Your task to perform on an android device: Open the calendar and show me this week's events? Image 0: 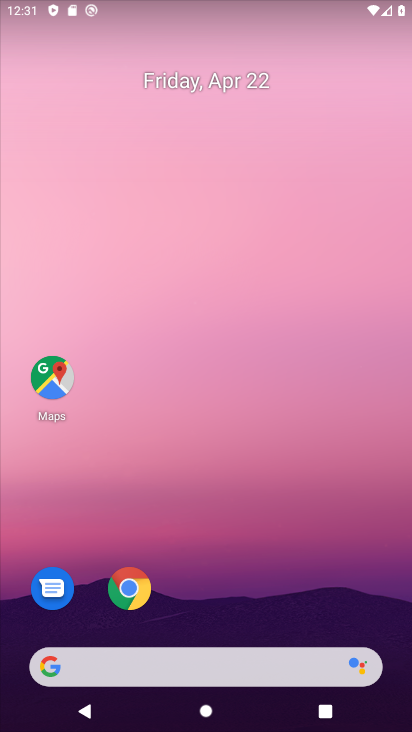
Step 0: drag from (221, 579) to (288, 14)
Your task to perform on an android device: Open the calendar and show me this week's events? Image 1: 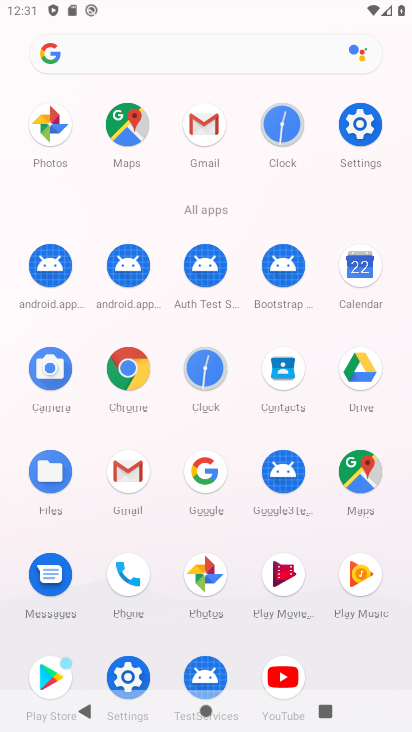
Step 1: click (355, 261)
Your task to perform on an android device: Open the calendar and show me this week's events? Image 2: 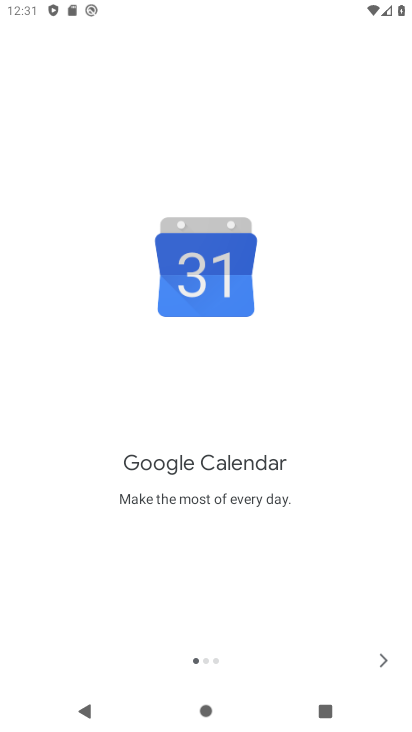
Step 2: click (372, 655)
Your task to perform on an android device: Open the calendar and show me this week's events? Image 3: 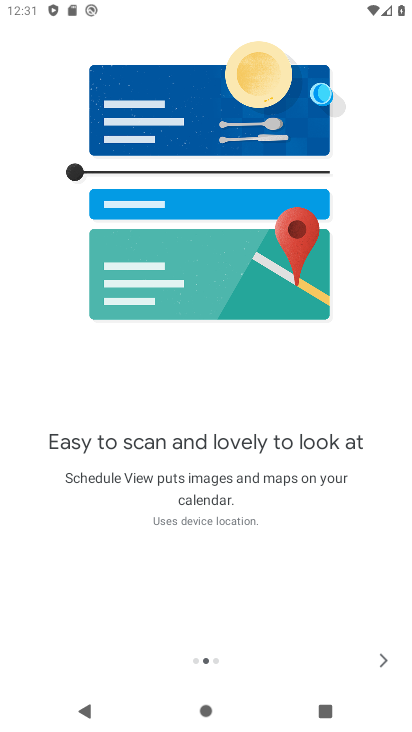
Step 3: click (372, 655)
Your task to perform on an android device: Open the calendar and show me this week's events? Image 4: 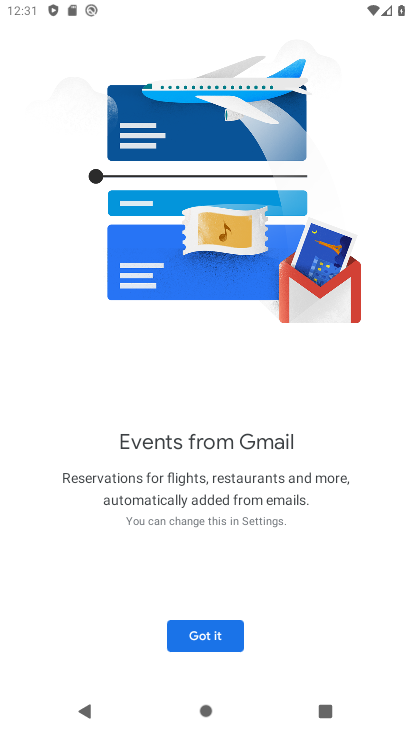
Step 4: click (214, 625)
Your task to perform on an android device: Open the calendar and show me this week's events? Image 5: 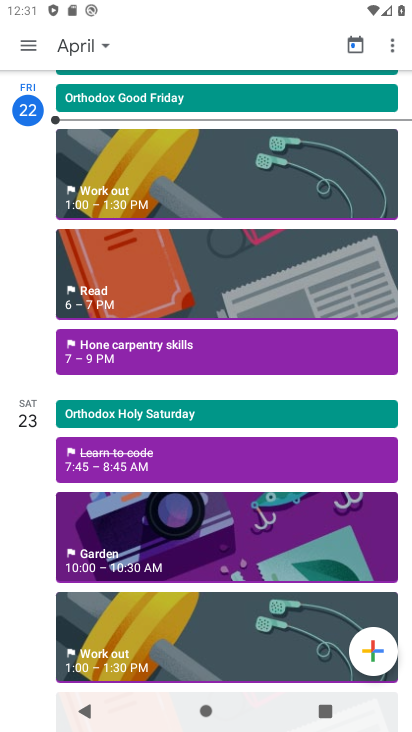
Step 5: task complete